Your task to perform on an android device: Open Reddit.com Image 0: 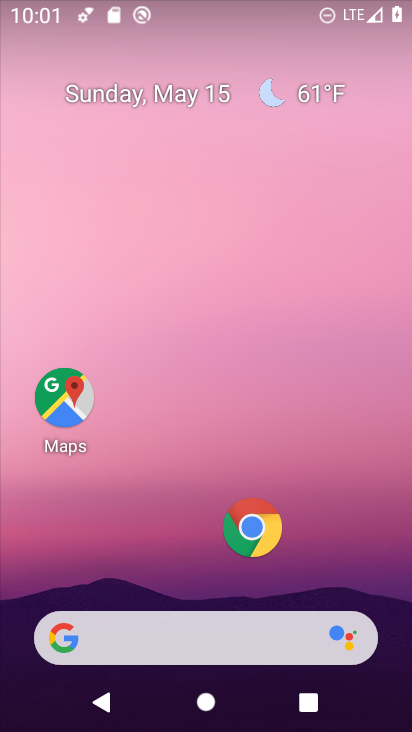
Step 0: drag from (199, 584) to (226, 36)
Your task to perform on an android device: Open Reddit.com Image 1: 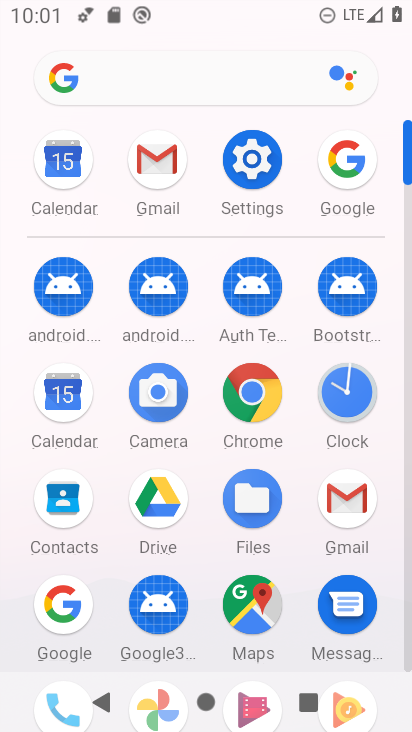
Step 1: click (253, 390)
Your task to perform on an android device: Open Reddit.com Image 2: 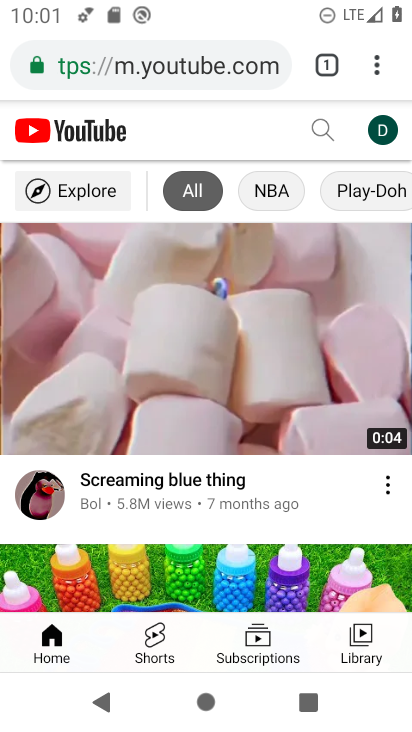
Step 2: press back button
Your task to perform on an android device: Open Reddit.com Image 3: 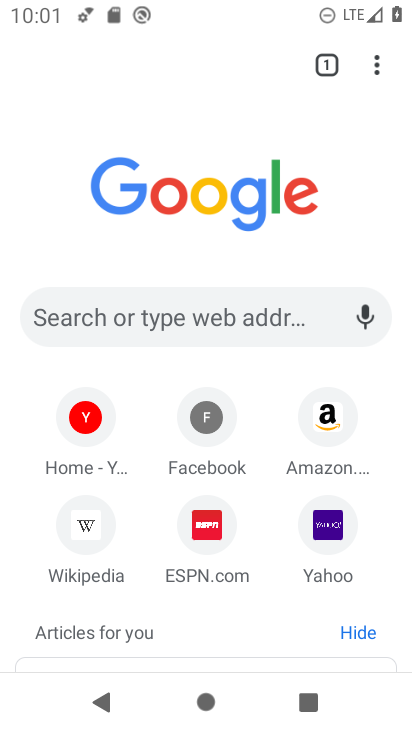
Step 3: drag from (144, 539) to (150, 117)
Your task to perform on an android device: Open Reddit.com Image 4: 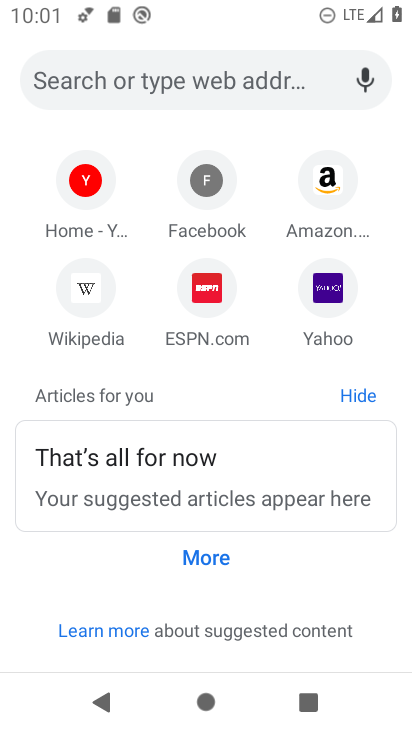
Step 4: click (153, 73)
Your task to perform on an android device: Open Reddit.com Image 5: 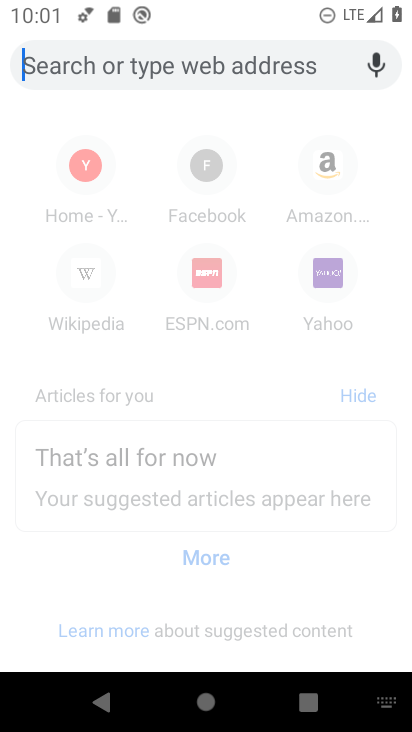
Step 5: type "reddit.com"
Your task to perform on an android device: Open Reddit.com Image 6: 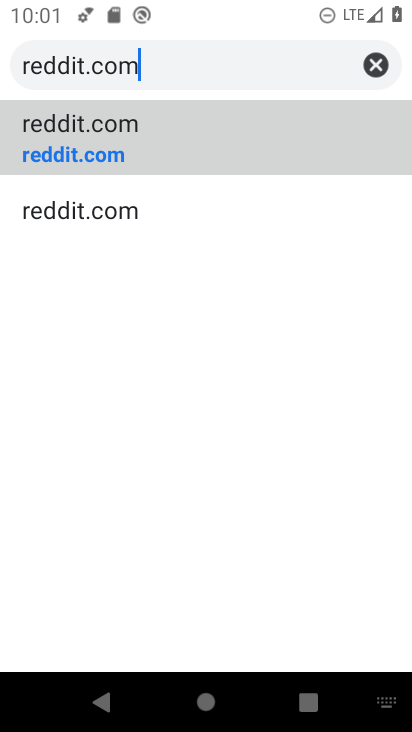
Step 6: click (108, 149)
Your task to perform on an android device: Open Reddit.com Image 7: 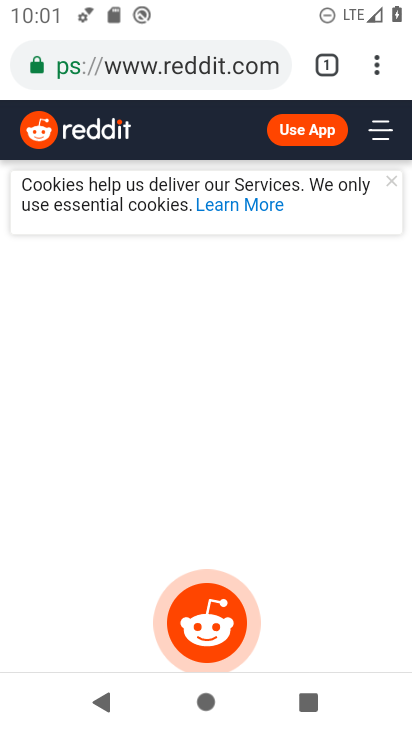
Step 7: task complete